Your task to perform on an android device: Add bose soundsport free to the cart on ebay Image 0: 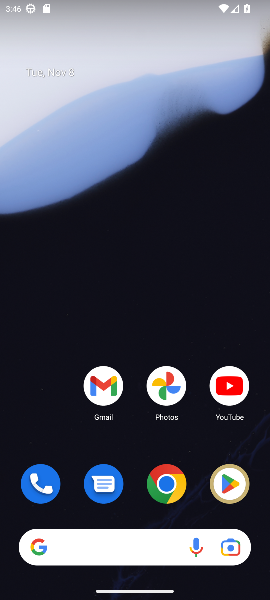
Step 0: click (153, 486)
Your task to perform on an android device: Add bose soundsport free to the cart on ebay Image 1: 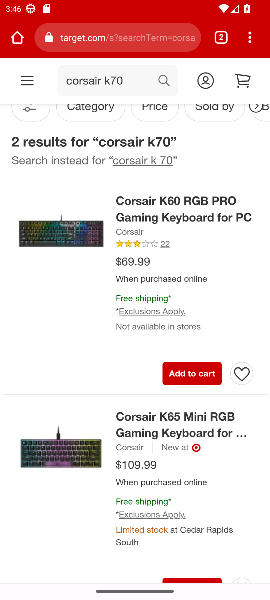
Step 1: click (81, 38)
Your task to perform on an android device: Add bose soundsport free to the cart on ebay Image 2: 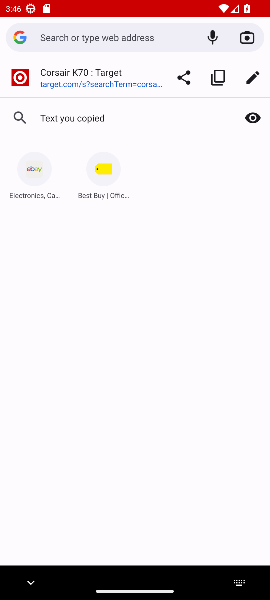
Step 2: click (30, 166)
Your task to perform on an android device: Add bose soundsport free to the cart on ebay Image 3: 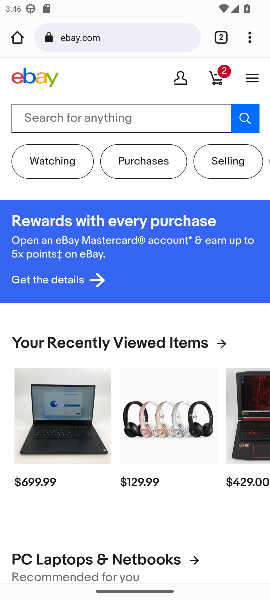
Step 3: click (109, 124)
Your task to perform on an android device: Add bose soundsport free to the cart on ebay Image 4: 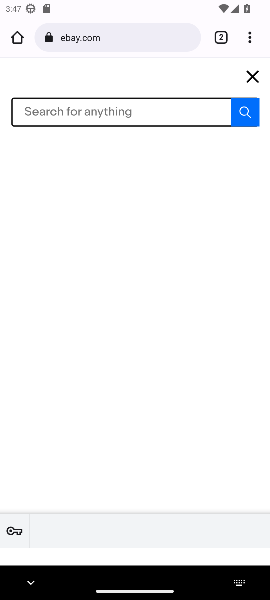
Step 4: type "bose soundsport free "
Your task to perform on an android device: Add bose soundsport free to the cart on ebay Image 5: 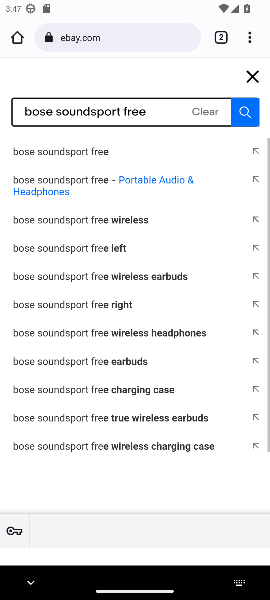
Step 5: click (251, 119)
Your task to perform on an android device: Add bose soundsport free to the cart on ebay Image 6: 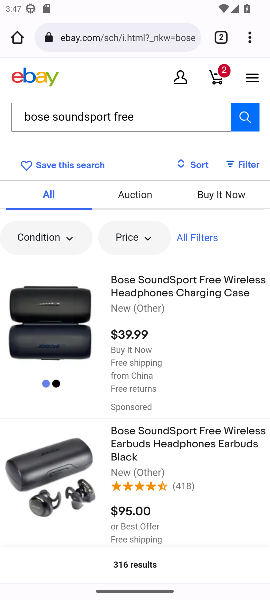
Step 6: click (134, 296)
Your task to perform on an android device: Add bose soundsport free to the cart on ebay Image 7: 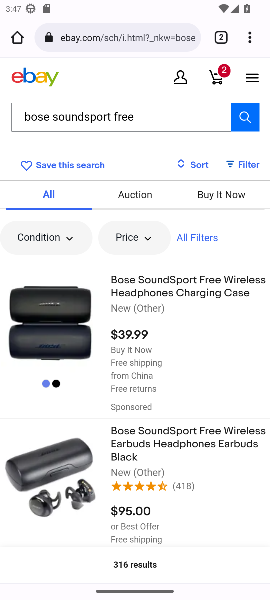
Step 7: click (143, 290)
Your task to perform on an android device: Add bose soundsport free to the cart on ebay Image 8: 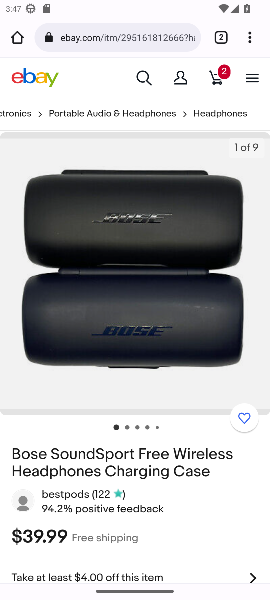
Step 8: drag from (150, 524) to (127, 170)
Your task to perform on an android device: Add bose soundsport free to the cart on ebay Image 9: 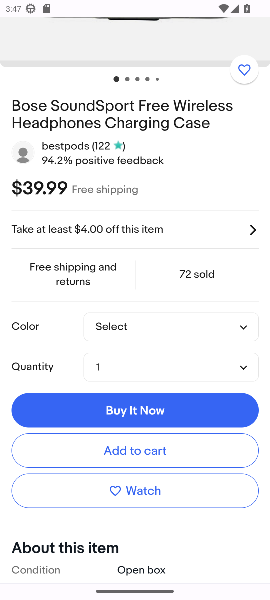
Step 9: drag from (83, 521) to (186, 191)
Your task to perform on an android device: Add bose soundsport free to the cart on ebay Image 10: 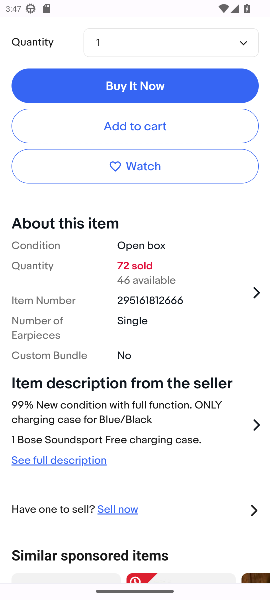
Step 10: click (134, 124)
Your task to perform on an android device: Add bose soundsport free to the cart on ebay Image 11: 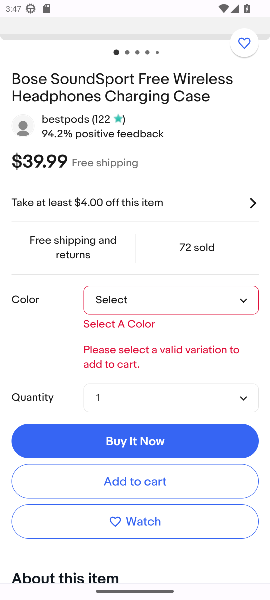
Step 11: click (170, 288)
Your task to perform on an android device: Add bose soundsport free to the cart on ebay Image 12: 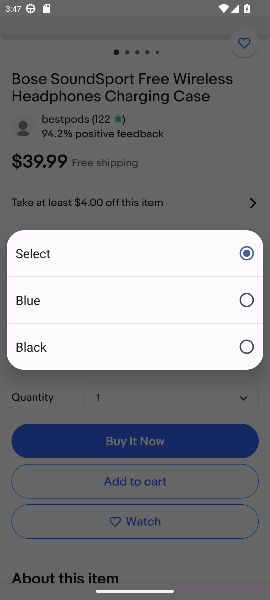
Step 12: click (170, 288)
Your task to perform on an android device: Add bose soundsport free to the cart on ebay Image 13: 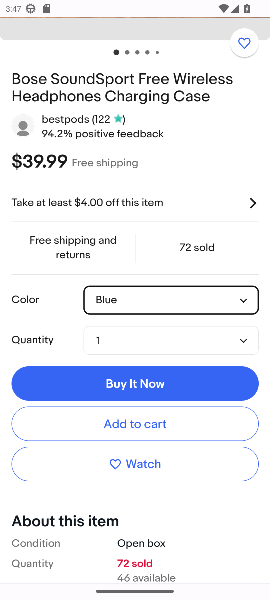
Step 13: click (157, 419)
Your task to perform on an android device: Add bose soundsport free to the cart on ebay Image 14: 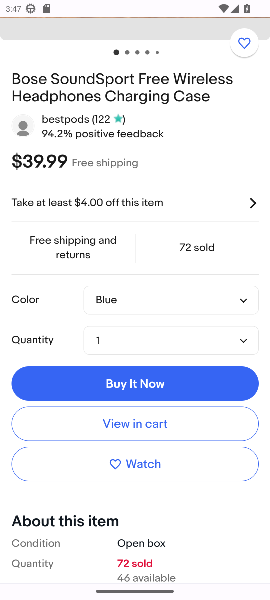
Step 14: task complete